Your task to perform on an android device: Search for Italian restaurants on Maps Image 0: 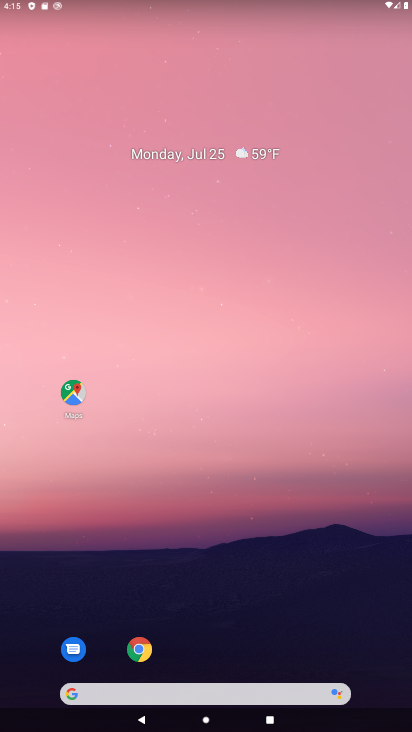
Step 0: drag from (236, 615) to (30, 91)
Your task to perform on an android device: Search for Italian restaurants on Maps Image 1: 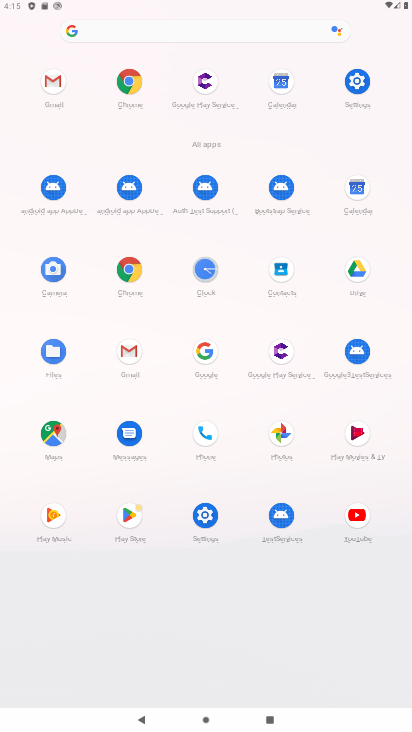
Step 1: click (46, 437)
Your task to perform on an android device: Search for Italian restaurants on Maps Image 2: 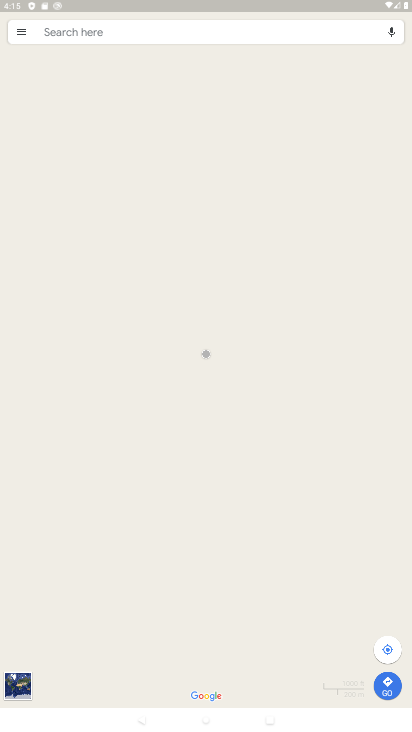
Step 2: click (108, 25)
Your task to perform on an android device: Search for Italian restaurants on Maps Image 3: 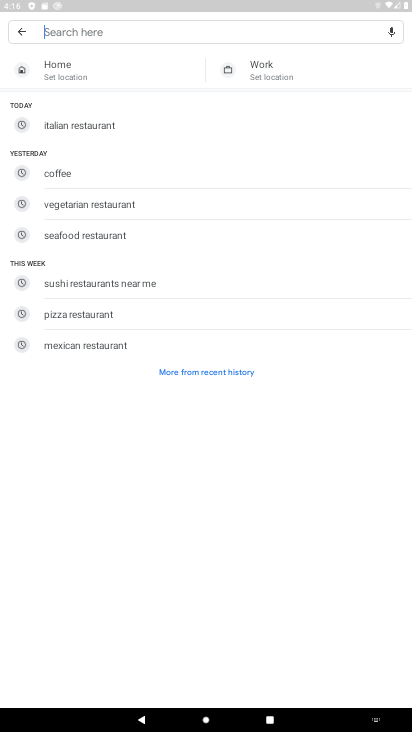
Step 3: type " Italian restaurants"
Your task to perform on an android device: Search for Italian restaurants on Maps Image 4: 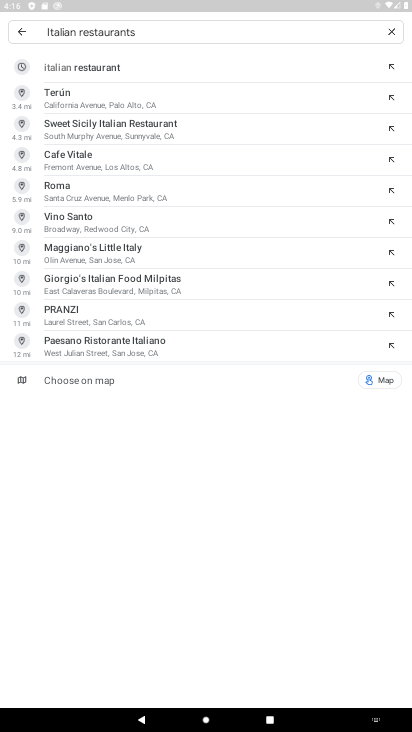
Step 4: click (122, 62)
Your task to perform on an android device: Search for Italian restaurants on Maps Image 5: 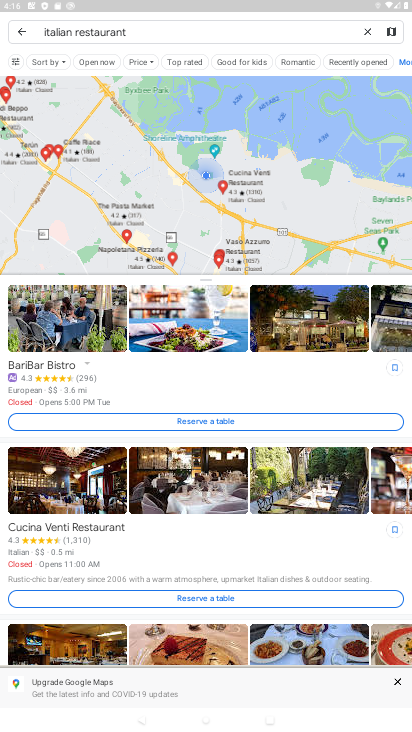
Step 5: task complete